Your task to perform on an android device: toggle location history Image 0: 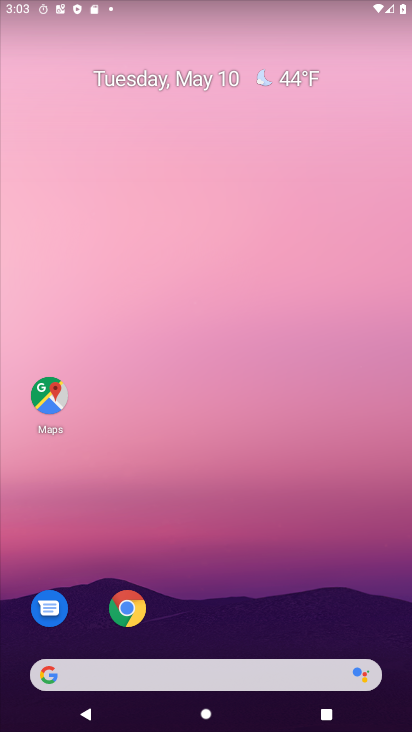
Step 0: click (55, 395)
Your task to perform on an android device: toggle location history Image 1: 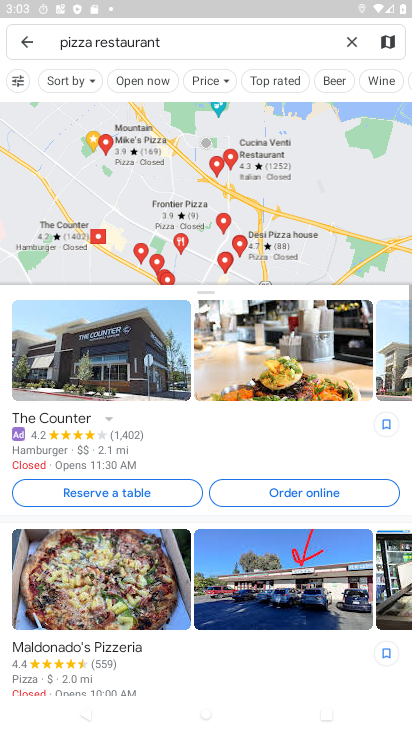
Step 1: click (352, 41)
Your task to perform on an android device: toggle location history Image 2: 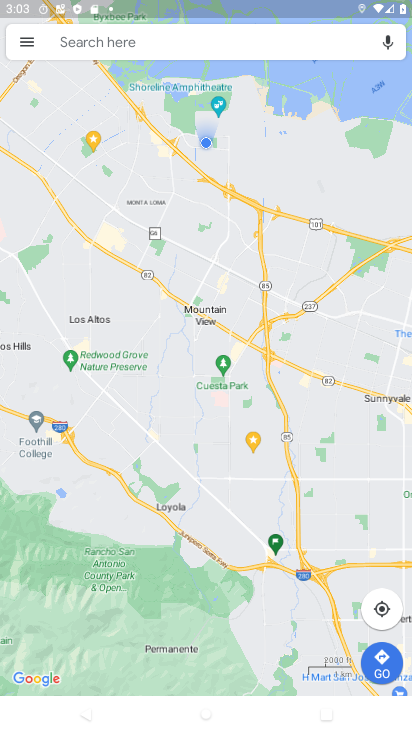
Step 2: click (29, 42)
Your task to perform on an android device: toggle location history Image 3: 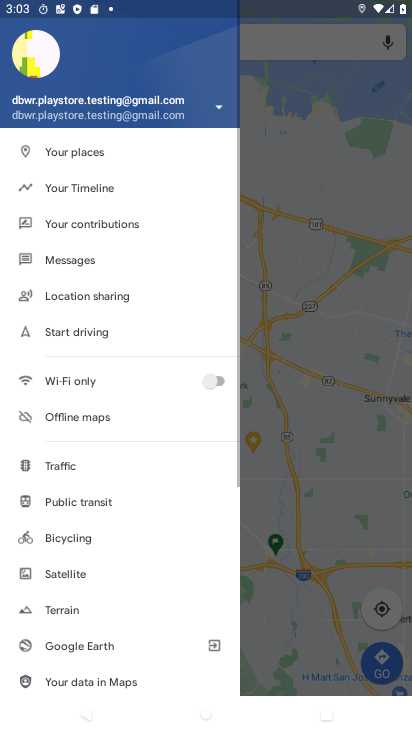
Step 3: click (92, 190)
Your task to perform on an android device: toggle location history Image 4: 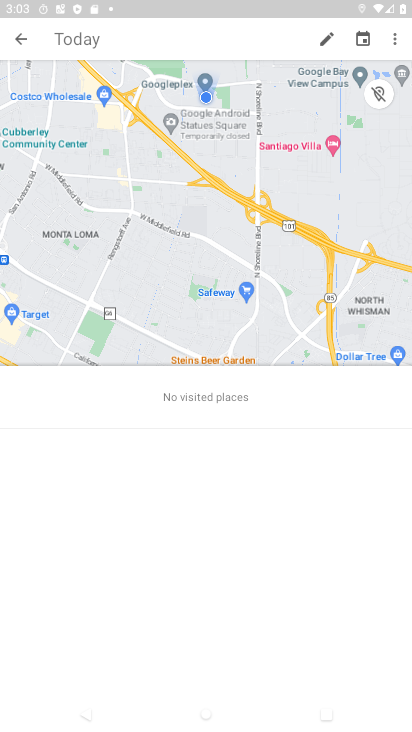
Step 4: click (394, 42)
Your task to perform on an android device: toggle location history Image 5: 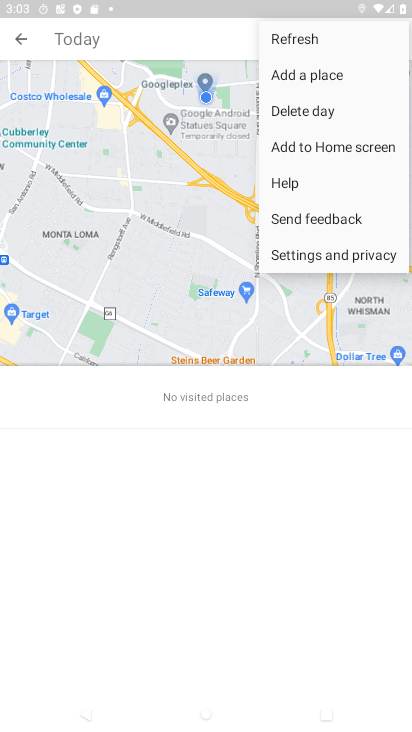
Step 5: click (296, 253)
Your task to perform on an android device: toggle location history Image 6: 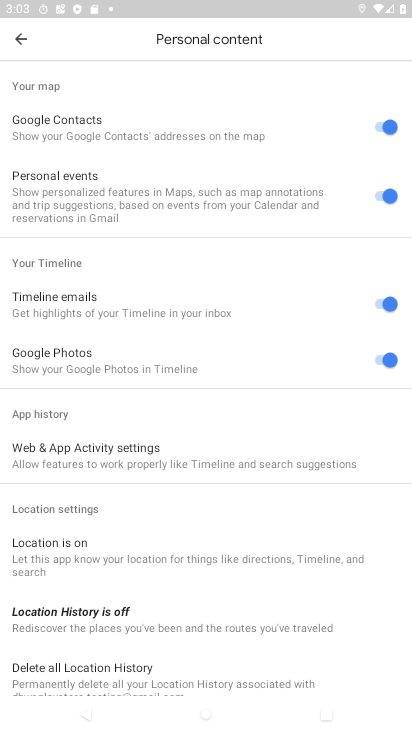
Step 6: click (111, 618)
Your task to perform on an android device: toggle location history Image 7: 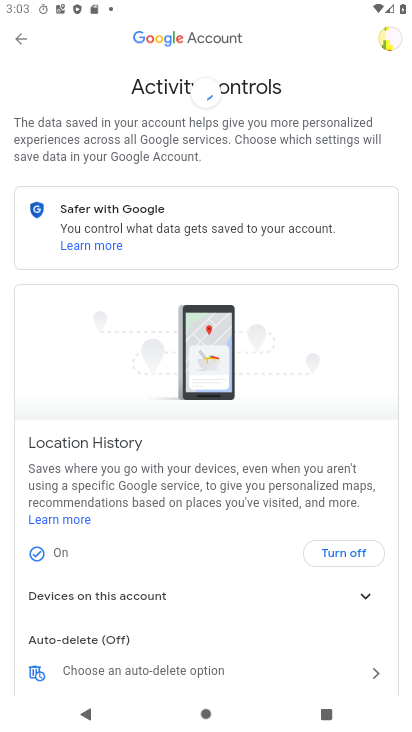
Step 7: click (349, 554)
Your task to perform on an android device: toggle location history Image 8: 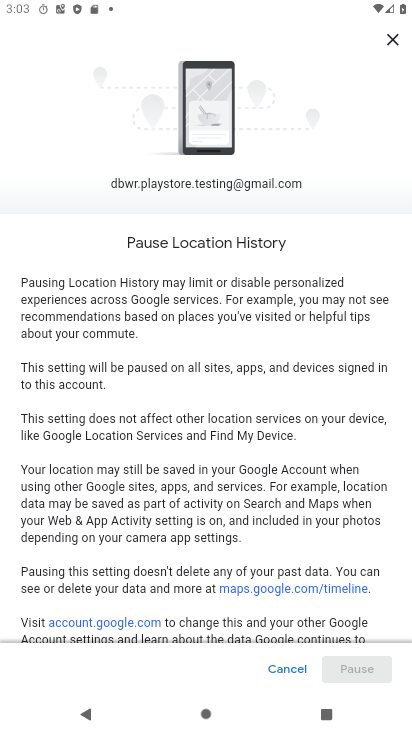
Step 8: drag from (199, 542) to (205, 39)
Your task to perform on an android device: toggle location history Image 9: 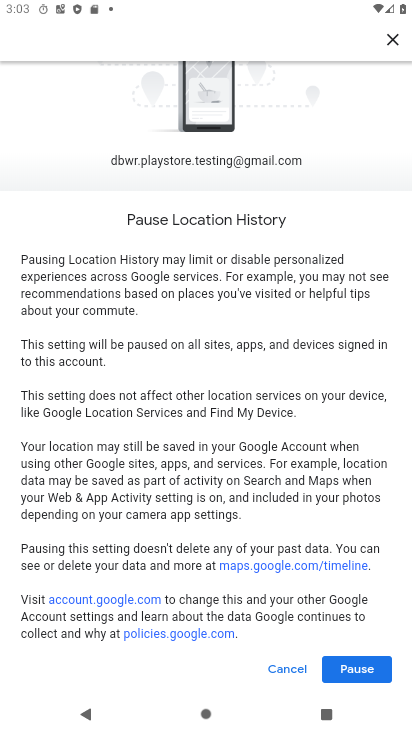
Step 9: click (366, 675)
Your task to perform on an android device: toggle location history Image 10: 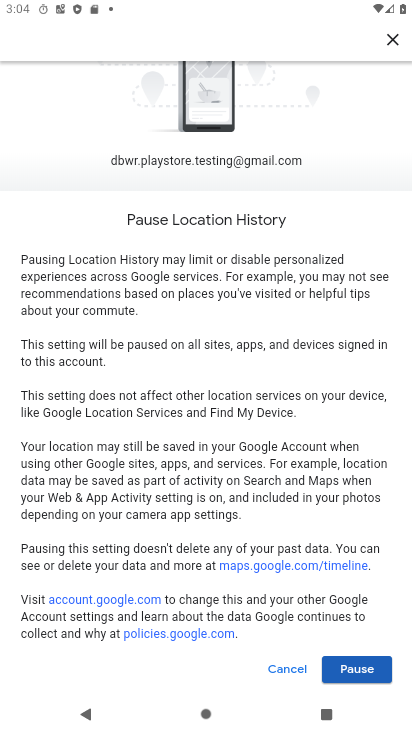
Step 10: click (366, 671)
Your task to perform on an android device: toggle location history Image 11: 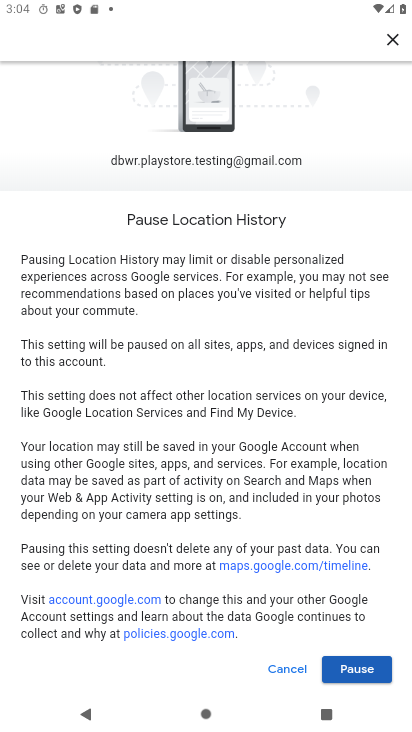
Step 11: drag from (217, 523) to (217, 415)
Your task to perform on an android device: toggle location history Image 12: 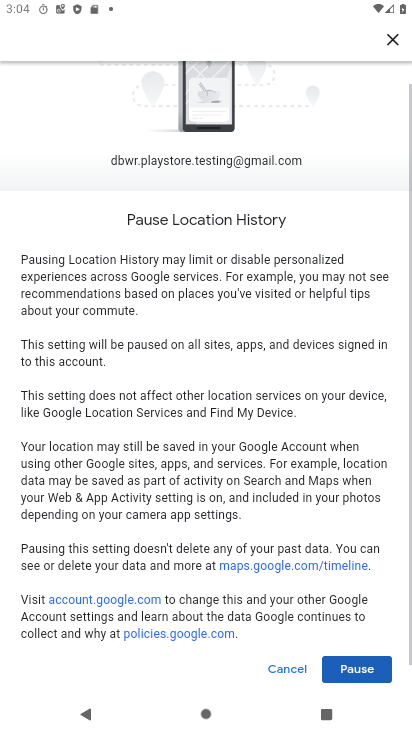
Step 12: click (363, 676)
Your task to perform on an android device: toggle location history Image 13: 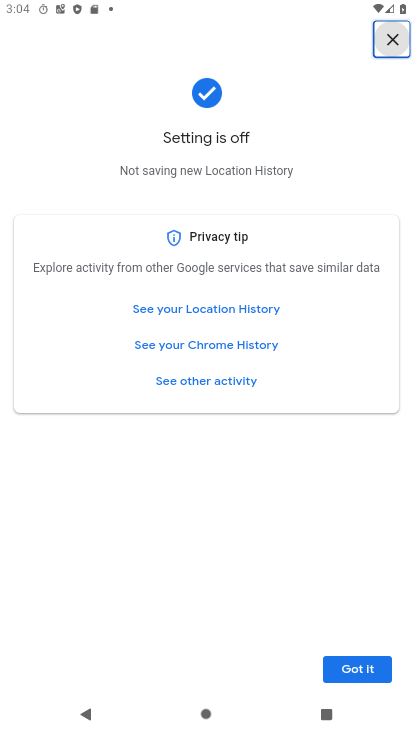
Step 13: click (345, 655)
Your task to perform on an android device: toggle location history Image 14: 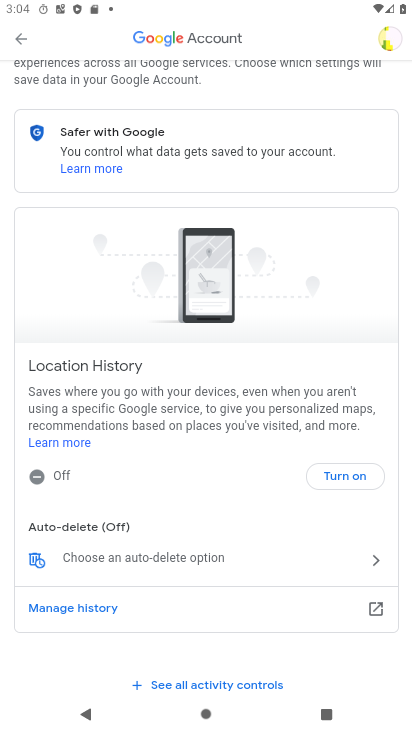
Step 14: task complete